Your task to perform on an android device: check battery use Image 0: 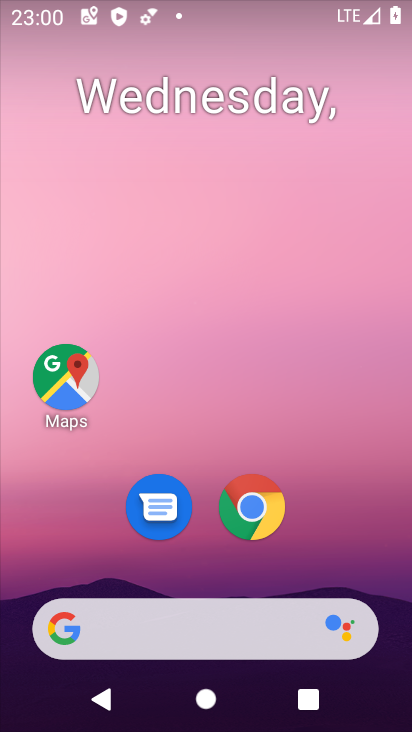
Step 0: drag from (317, 462) to (314, 194)
Your task to perform on an android device: check battery use Image 1: 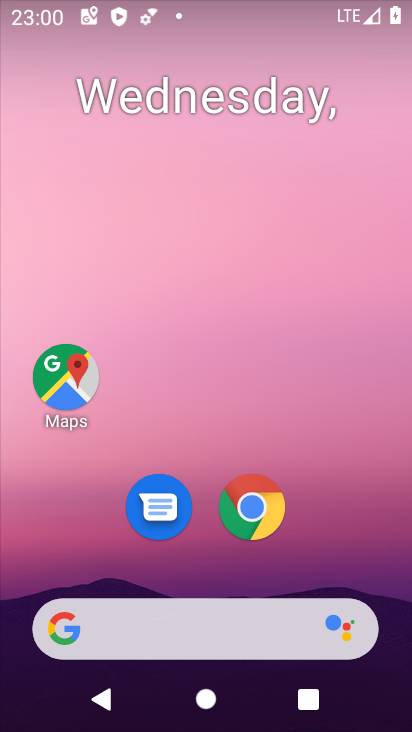
Step 1: drag from (317, 565) to (353, 169)
Your task to perform on an android device: check battery use Image 2: 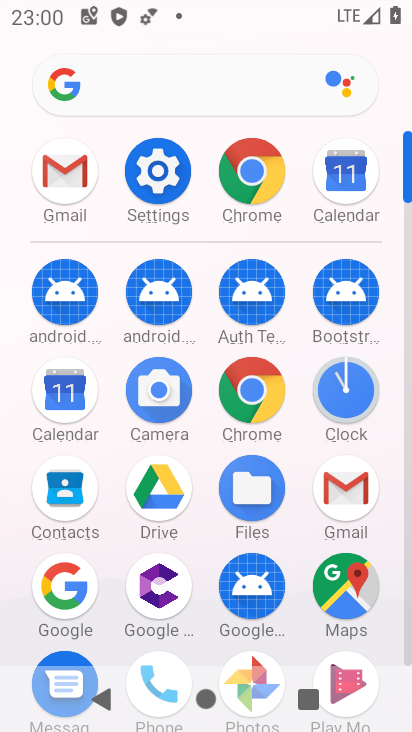
Step 2: click (148, 165)
Your task to perform on an android device: check battery use Image 3: 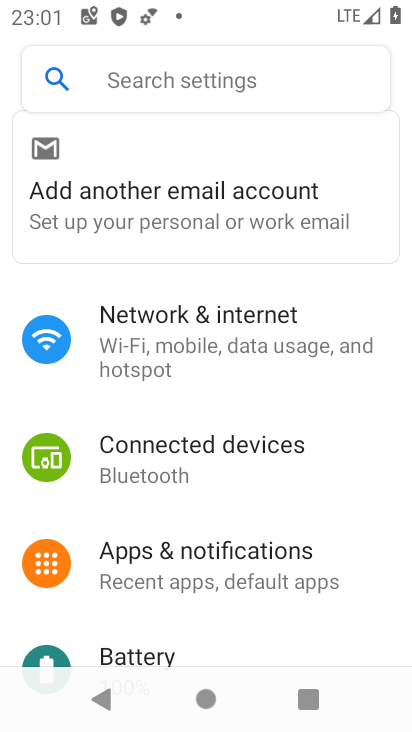
Step 3: drag from (206, 601) to (233, 420)
Your task to perform on an android device: check battery use Image 4: 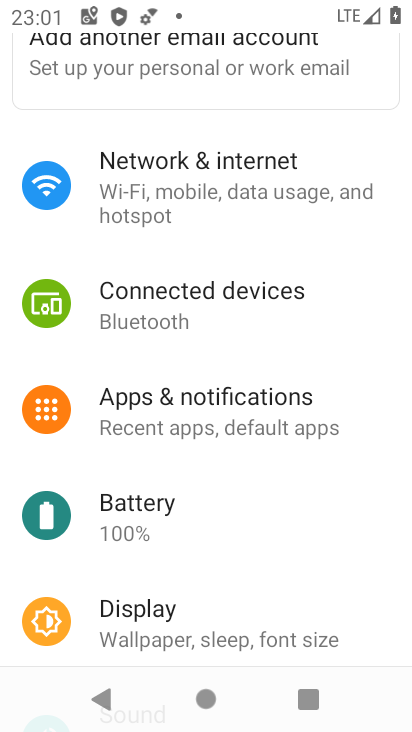
Step 4: click (176, 506)
Your task to perform on an android device: check battery use Image 5: 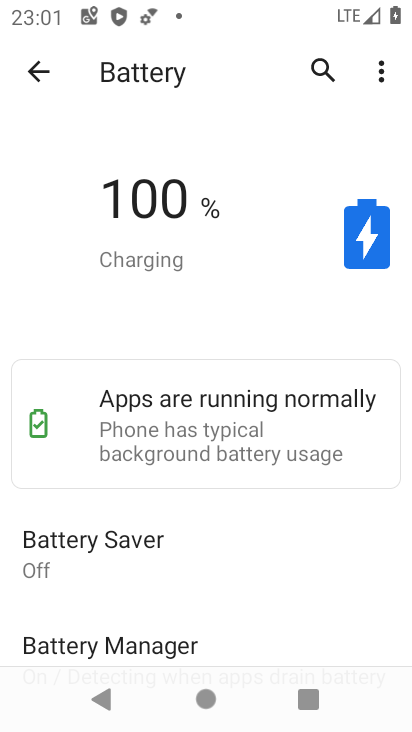
Step 5: task complete